Your task to perform on an android device: change notifications settings Image 0: 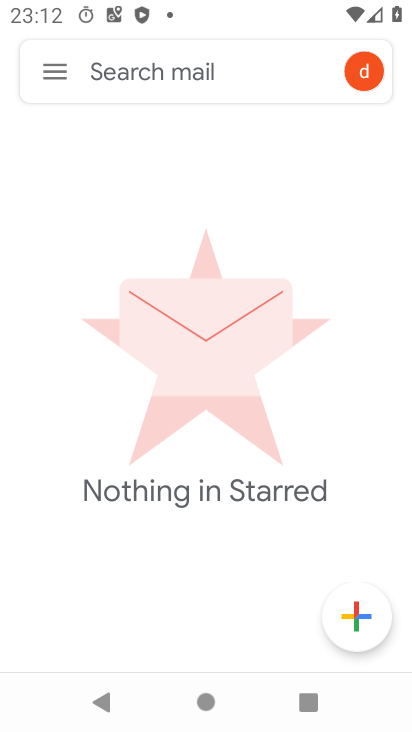
Step 0: drag from (212, 553) to (220, 294)
Your task to perform on an android device: change notifications settings Image 1: 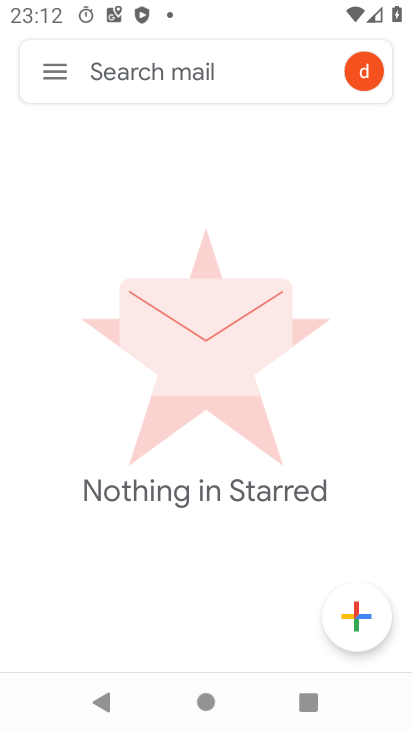
Step 1: click (67, 75)
Your task to perform on an android device: change notifications settings Image 2: 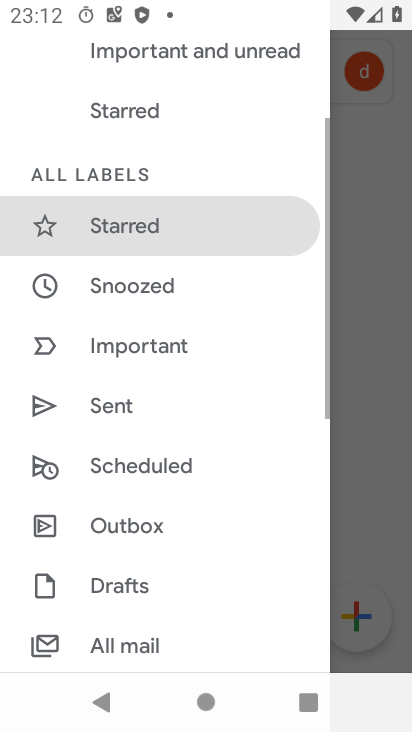
Step 2: drag from (159, 525) to (217, 95)
Your task to perform on an android device: change notifications settings Image 3: 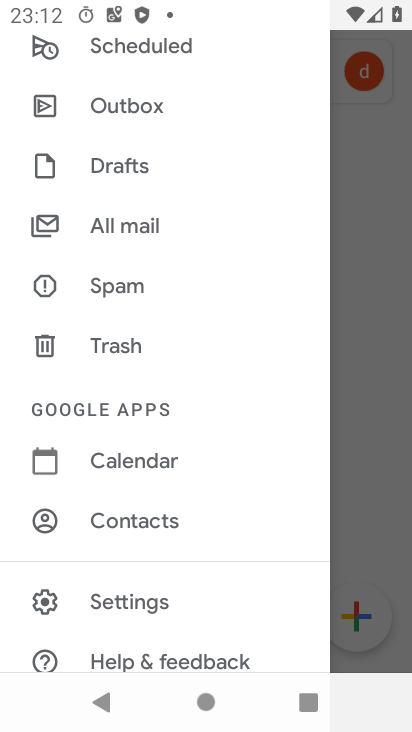
Step 3: click (134, 589)
Your task to perform on an android device: change notifications settings Image 4: 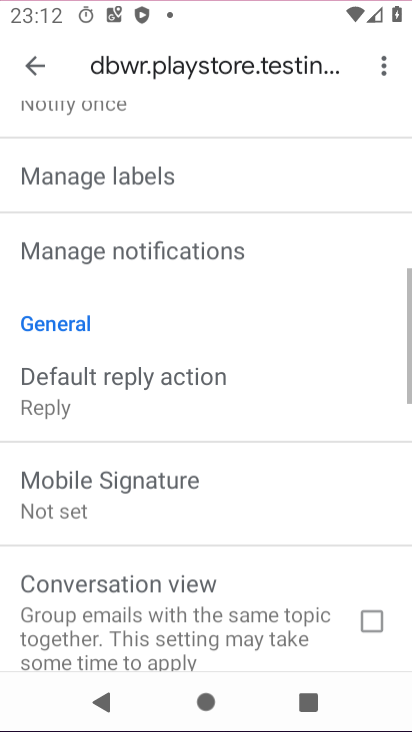
Step 4: drag from (159, 530) to (220, 86)
Your task to perform on an android device: change notifications settings Image 5: 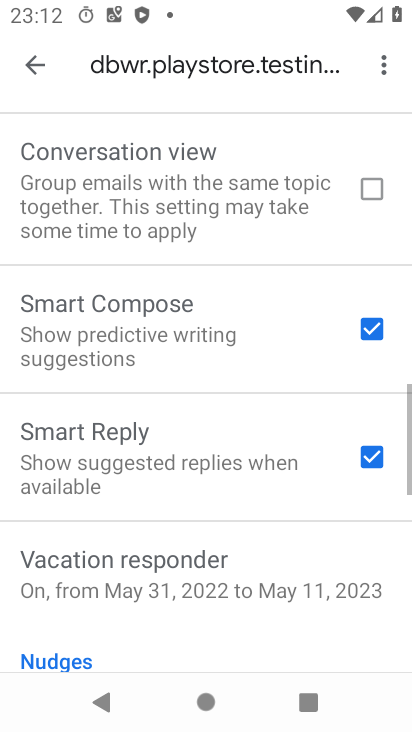
Step 5: drag from (158, 288) to (275, 723)
Your task to perform on an android device: change notifications settings Image 6: 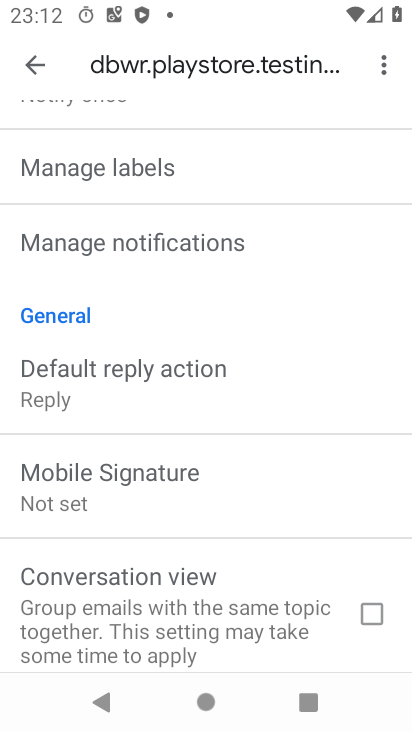
Step 6: click (96, 229)
Your task to perform on an android device: change notifications settings Image 7: 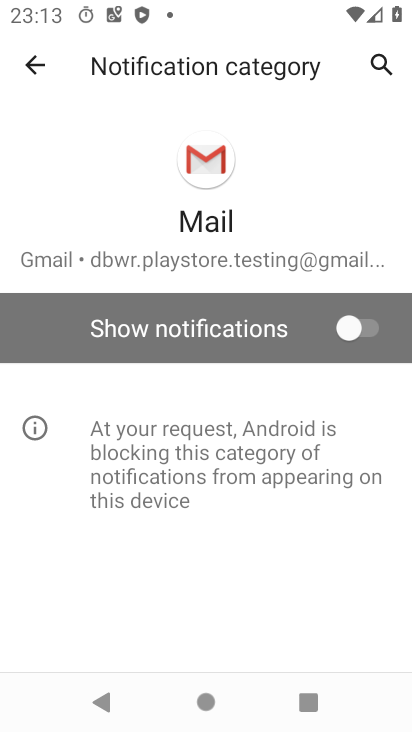
Step 7: click (41, 71)
Your task to perform on an android device: change notifications settings Image 8: 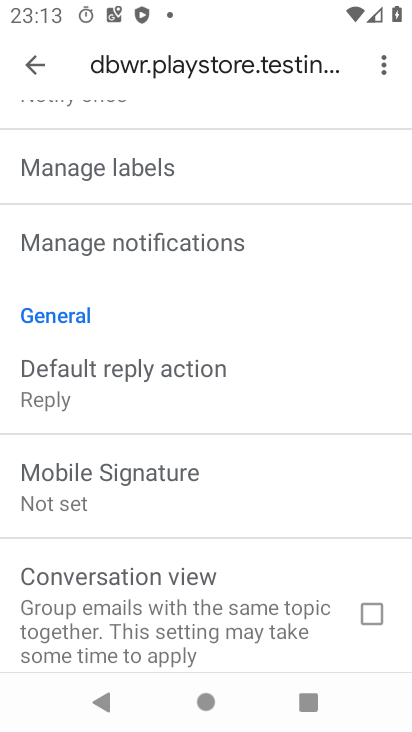
Step 8: press home button
Your task to perform on an android device: change notifications settings Image 9: 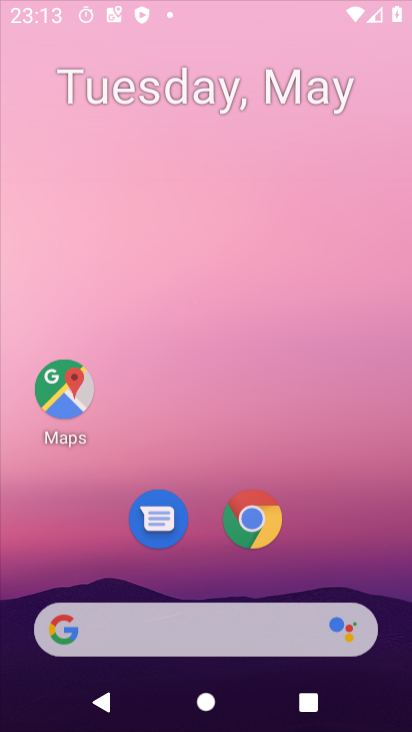
Step 9: drag from (59, 627) to (198, 2)
Your task to perform on an android device: change notifications settings Image 10: 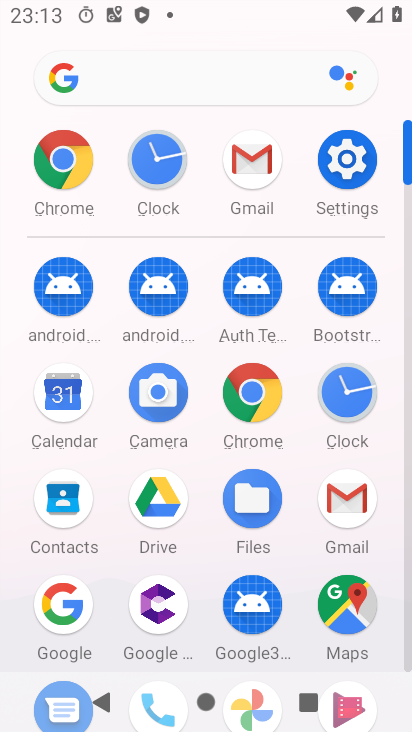
Step 10: click (334, 165)
Your task to perform on an android device: change notifications settings Image 11: 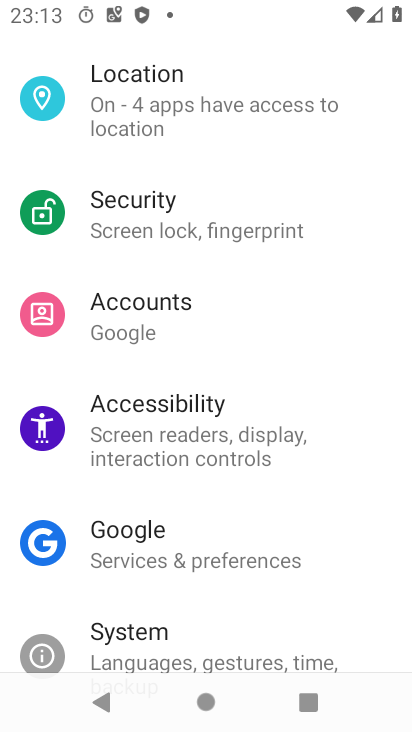
Step 11: drag from (228, 200) to (263, 720)
Your task to perform on an android device: change notifications settings Image 12: 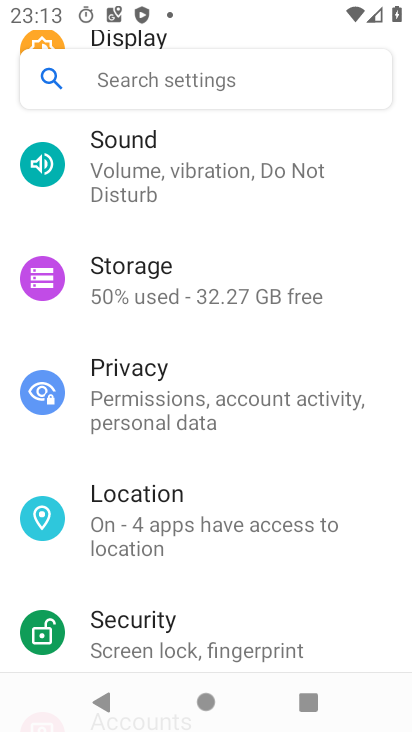
Step 12: drag from (151, 272) to (210, 731)
Your task to perform on an android device: change notifications settings Image 13: 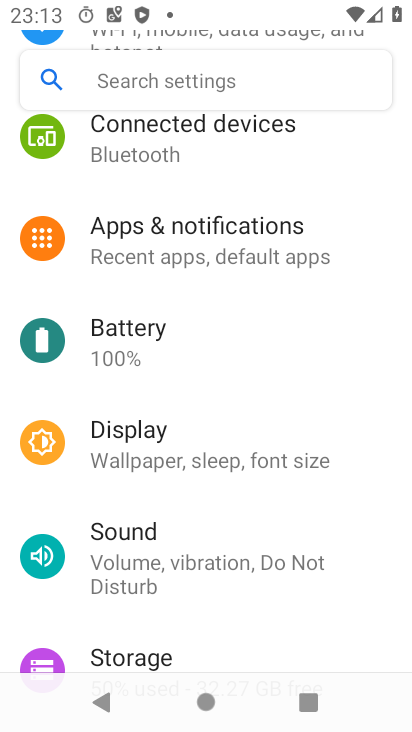
Step 13: click (202, 269)
Your task to perform on an android device: change notifications settings Image 14: 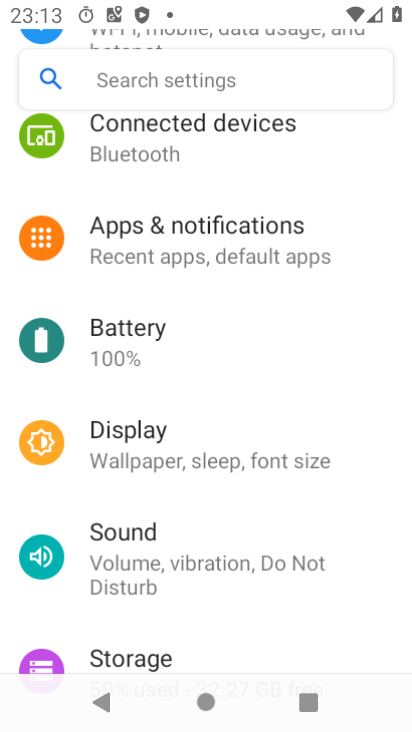
Step 14: drag from (229, 555) to (226, 268)
Your task to perform on an android device: change notifications settings Image 15: 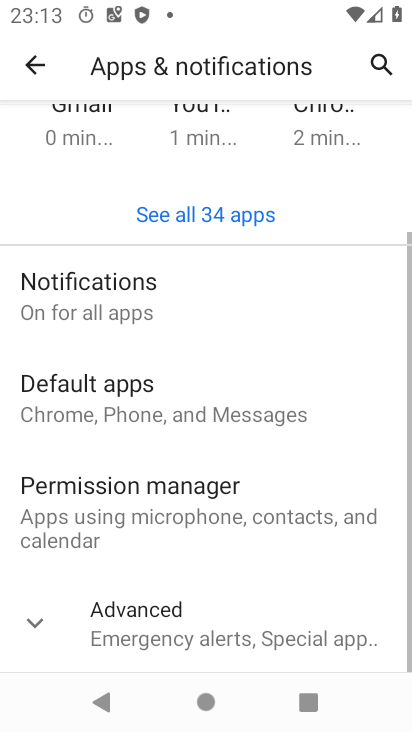
Step 15: click (131, 300)
Your task to perform on an android device: change notifications settings Image 16: 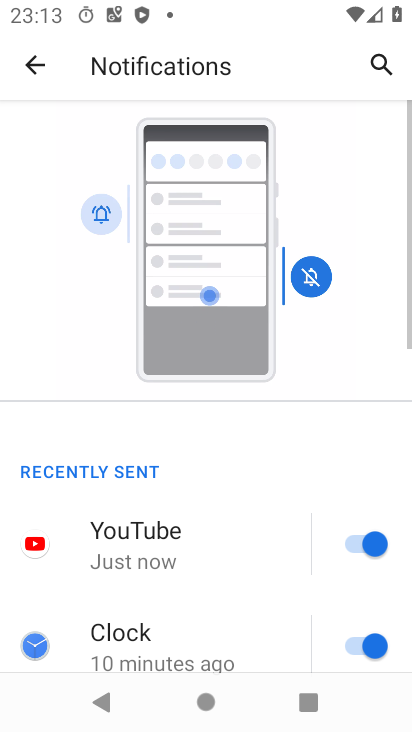
Step 16: task complete